Your task to perform on an android device: turn off location Image 0: 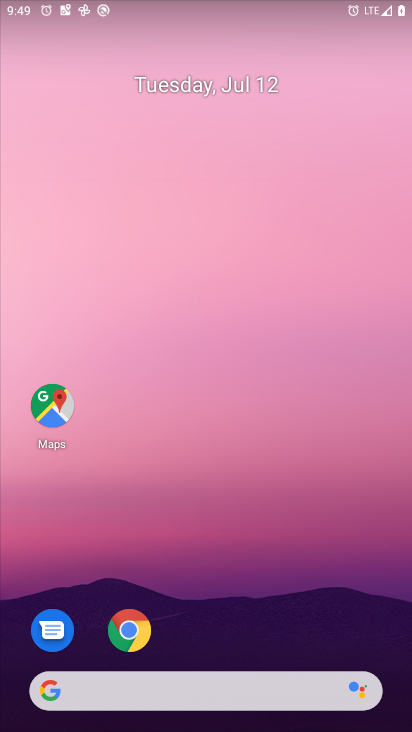
Step 0: drag from (222, 609) to (226, 131)
Your task to perform on an android device: turn off location Image 1: 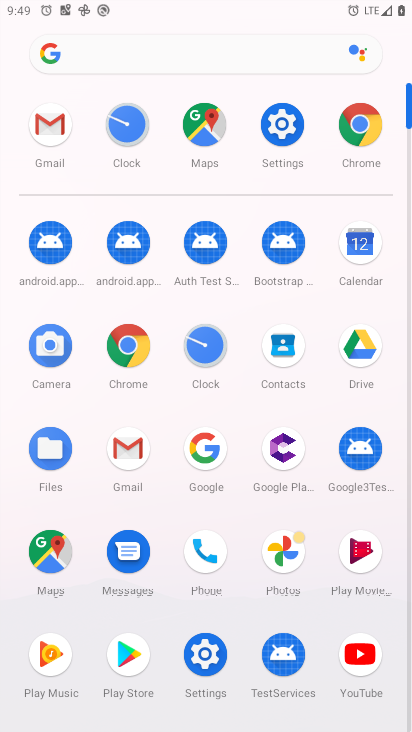
Step 1: click (282, 130)
Your task to perform on an android device: turn off location Image 2: 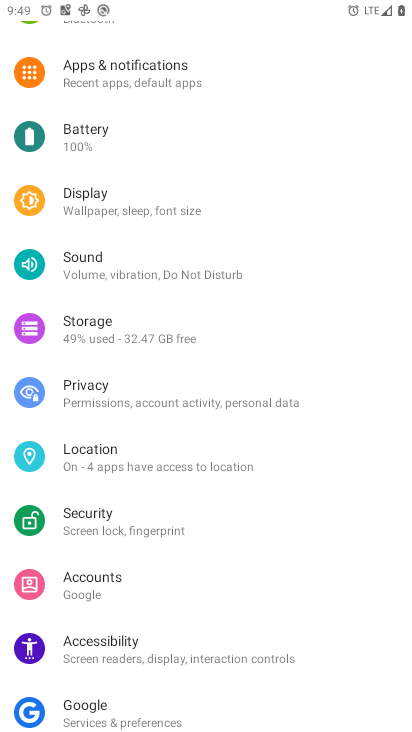
Step 2: click (123, 457)
Your task to perform on an android device: turn off location Image 3: 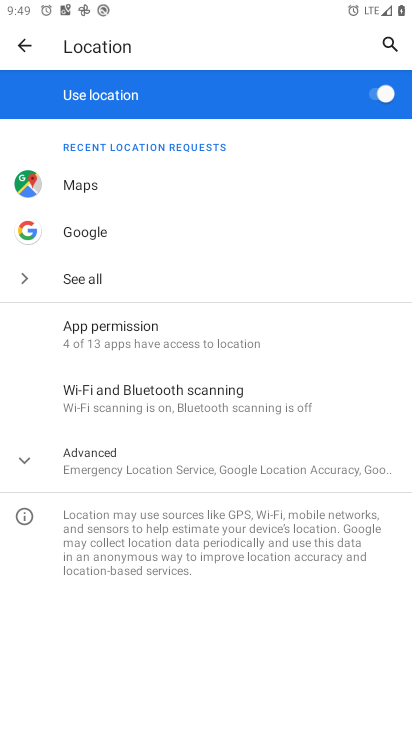
Step 3: click (382, 97)
Your task to perform on an android device: turn off location Image 4: 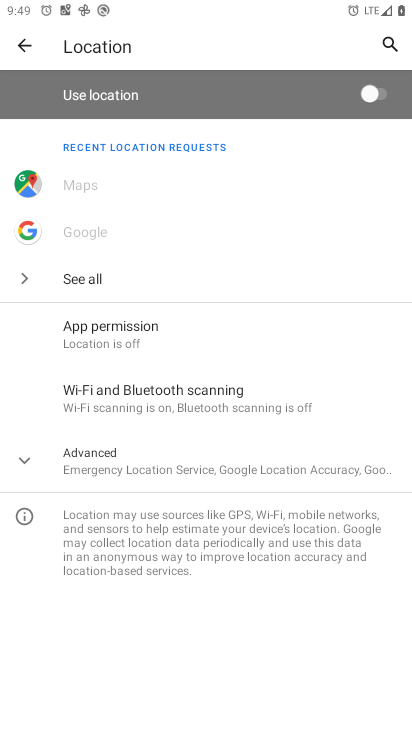
Step 4: task complete